Your task to perform on an android device: change text size in settings app Image 0: 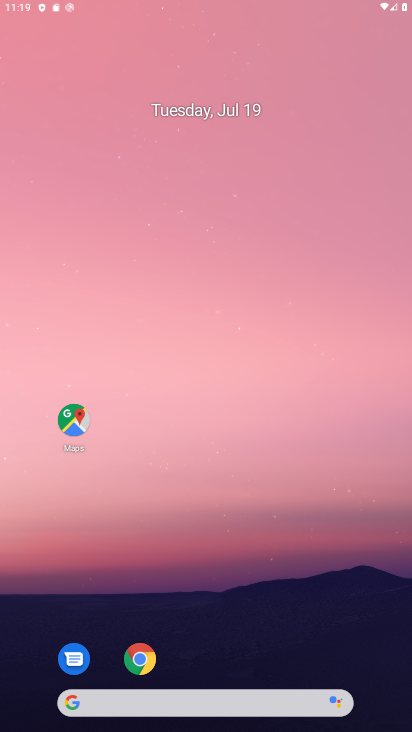
Step 0: press home button
Your task to perform on an android device: change text size in settings app Image 1: 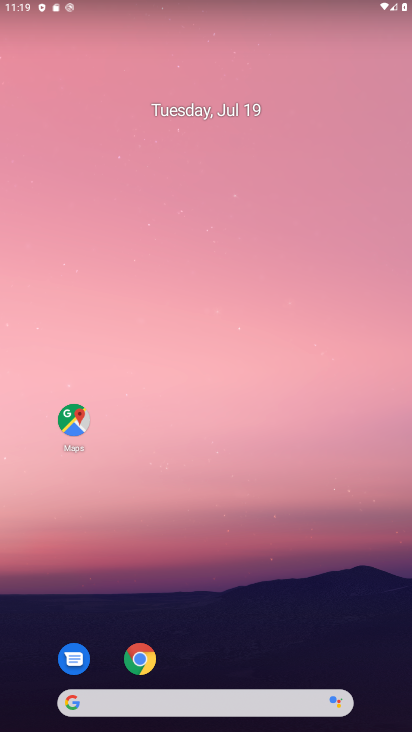
Step 1: drag from (232, 668) to (273, 2)
Your task to perform on an android device: change text size in settings app Image 2: 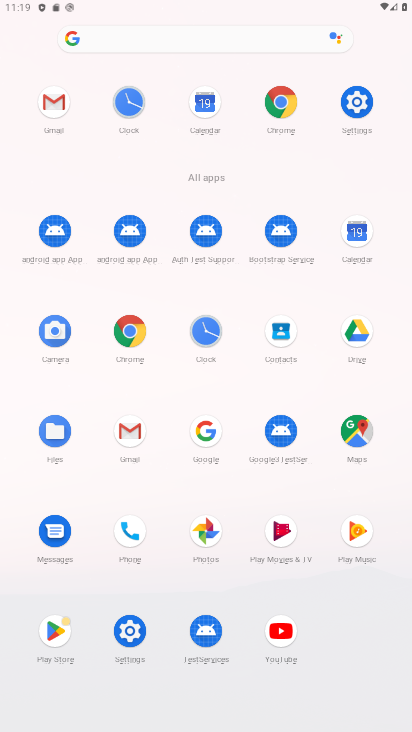
Step 2: click (356, 103)
Your task to perform on an android device: change text size in settings app Image 3: 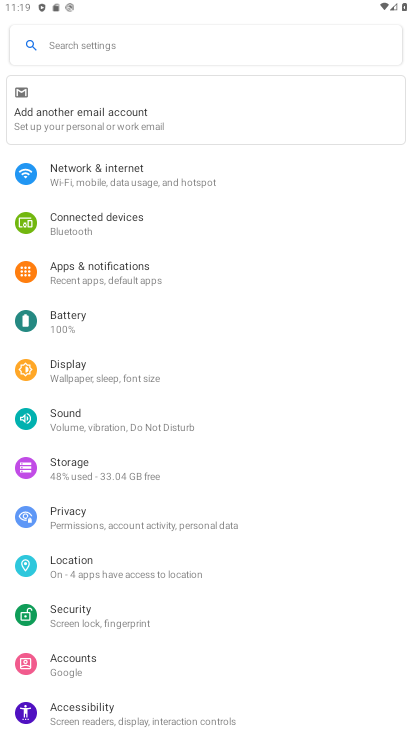
Step 3: click (99, 368)
Your task to perform on an android device: change text size in settings app Image 4: 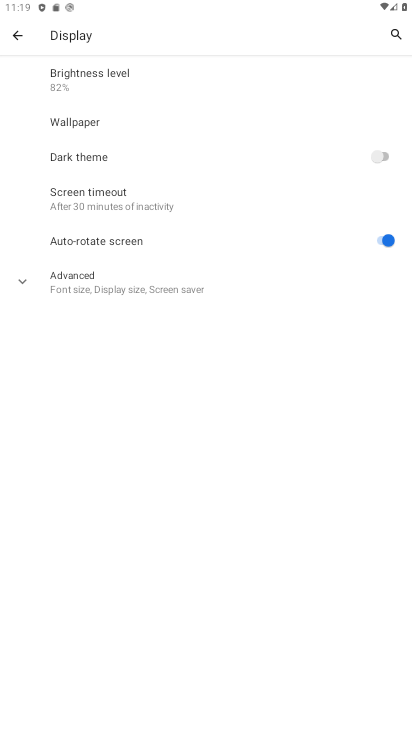
Step 4: click (20, 276)
Your task to perform on an android device: change text size in settings app Image 5: 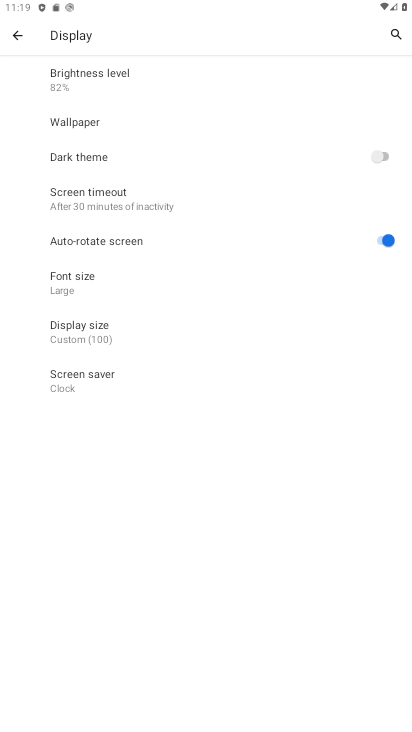
Step 5: click (107, 278)
Your task to perform on an android device: change text size in settings app Image 6: 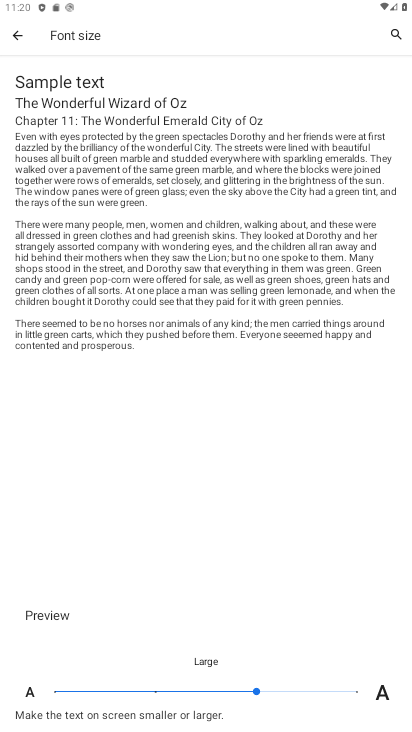
Step 6: click (354, 691)
Your task to perform on an android device: change text size in settings app Image 7: 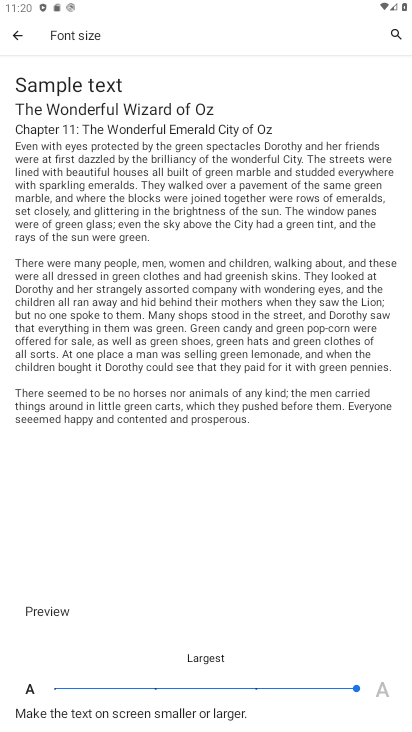
Step 7: task complete